Your task to perform on an android device: change the clock display to digital Image 0: 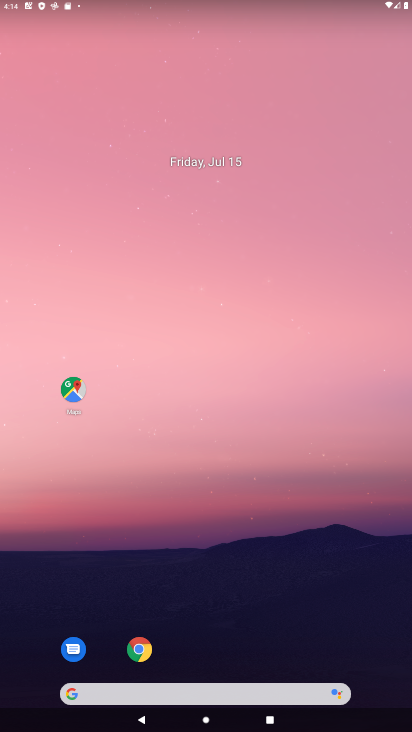
Step 0: drag from (294, 637) to (260, 140)
Your task to perform on an android device: change the clock display to digital Image 1: 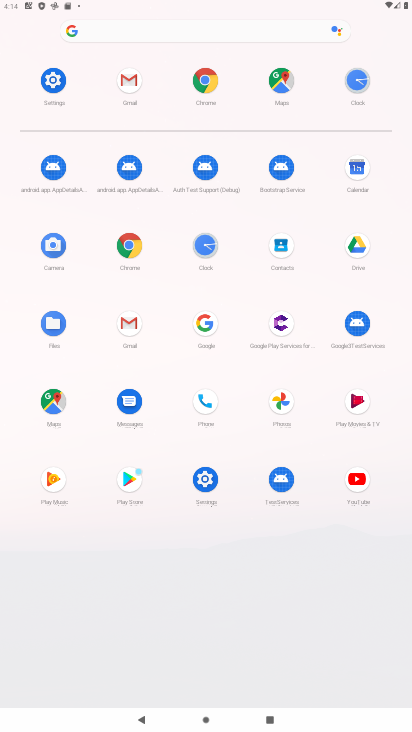
Step 1: click (213, 246)
Your task to perform on an android device: change the clock display to digital Image 2: 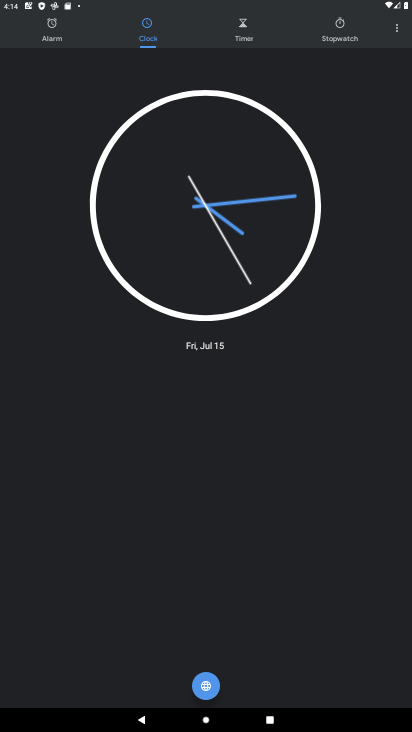
Step 2: click (395, 30)
Your task to perform on an android device: change the clock display to digital Image 3: 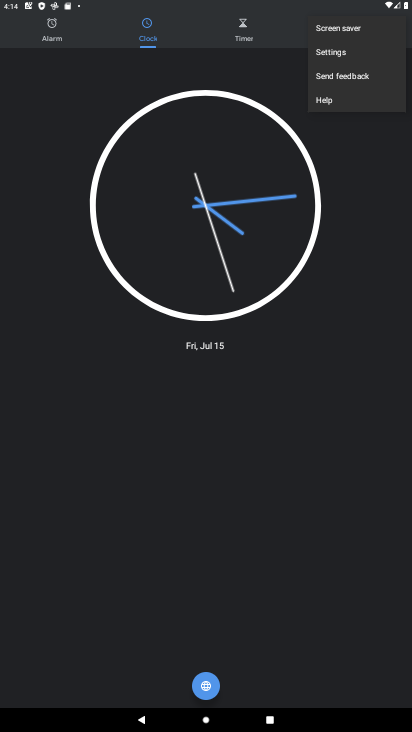
Step 3: click (333, 52)
Your task to perform on an android device: change the clock display to digital Image 4: 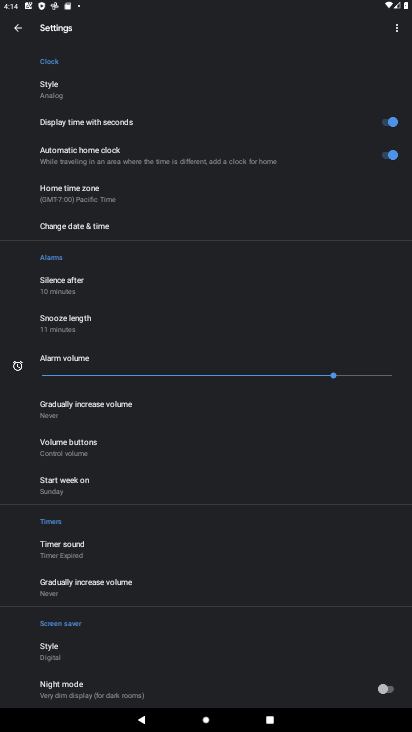
Step 4: click (63, 94)
Your task to perform on an android device: change the clock display to digital Image 5: 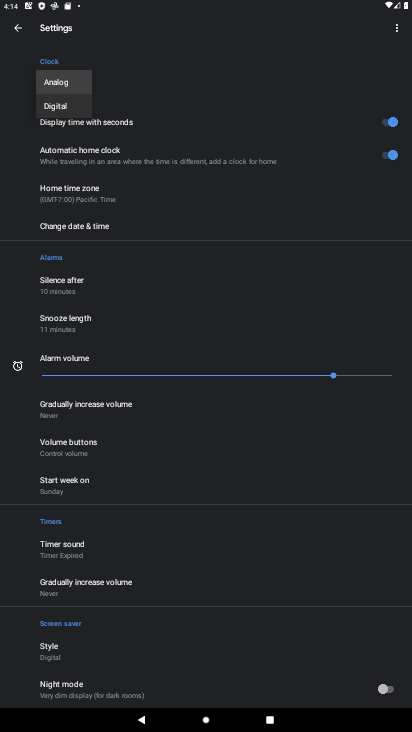
Step 5: click (69, 107)
Your task to perform on an android device: change the clock display to digital Image 6: 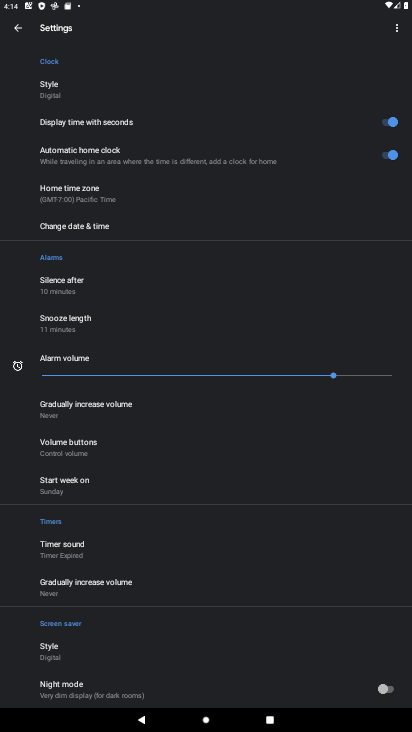
Step 6: task complete